Your task to perform on an android device: toggle translation in the chrome app Image 0: 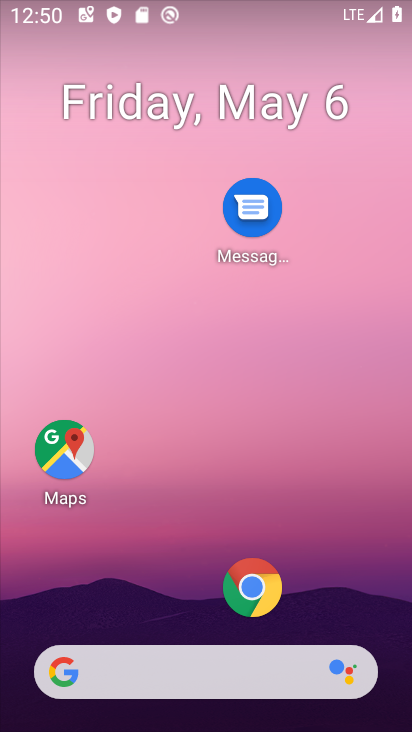
Step 0: click (255, 565)
Your task to perform on an android device: toggle translation in the chrome app Image 1: 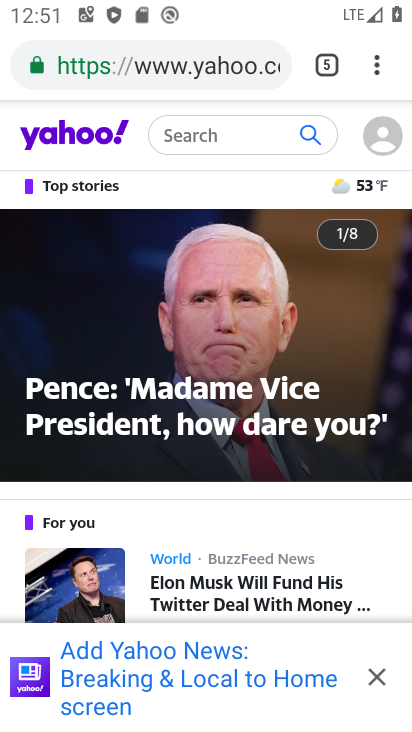
Step 1: drag from (376, 57) to (166, 623)
Your task to perform on an android device: toggle translation in the chrome app Image 2: 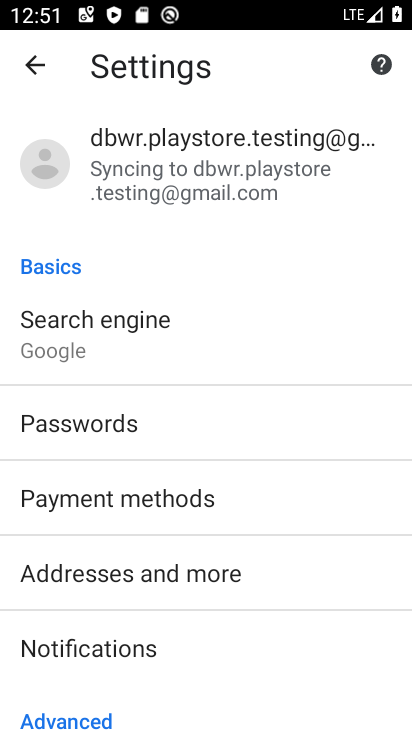
Step 2: drag from (152, 644) to (249, 86)
Your task to perform on an android device: toggle translation in the chrome app Image 3: 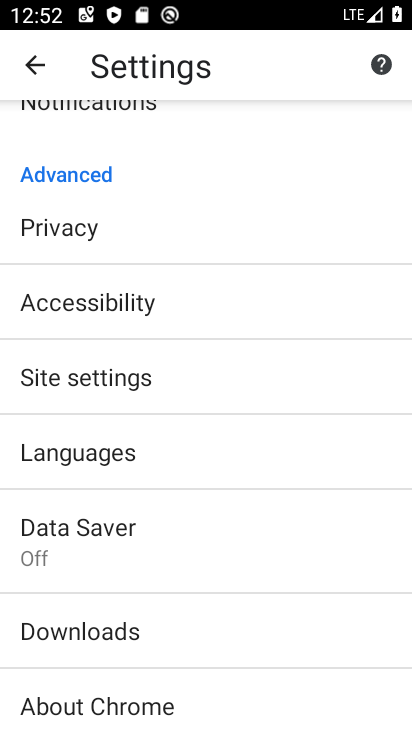
Step 3: click (74, 446)
Your task to perform on an android device: toggle translation in the chrome app Image 4: 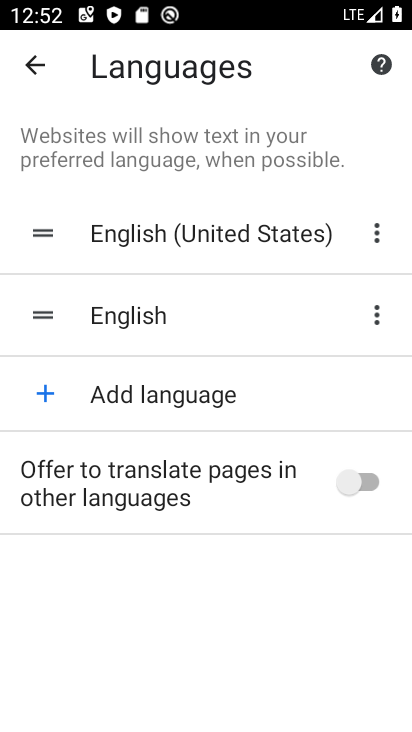
Step 4: click (359, 474)
Your task to perform on an android device: toggle translation in the chrome app Image 5: 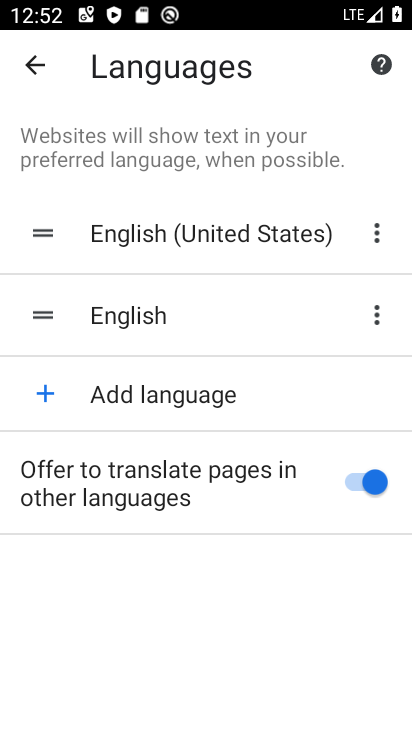
Step 5: task complete